Your task to perform on an android device: check storage Image 0: 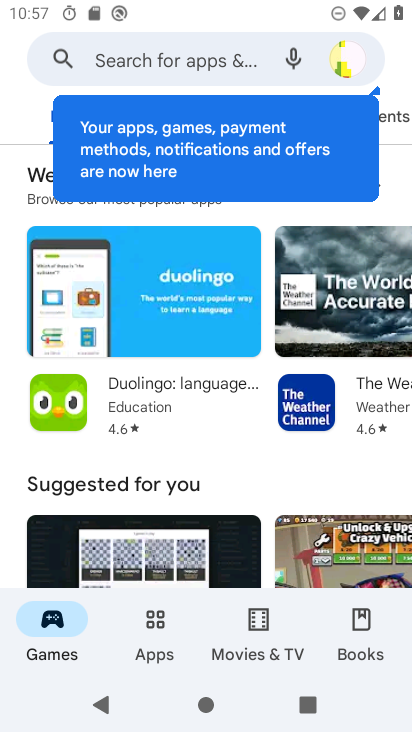
Step 0: press home button
Your task to perform on an android device: check storage Image 1: 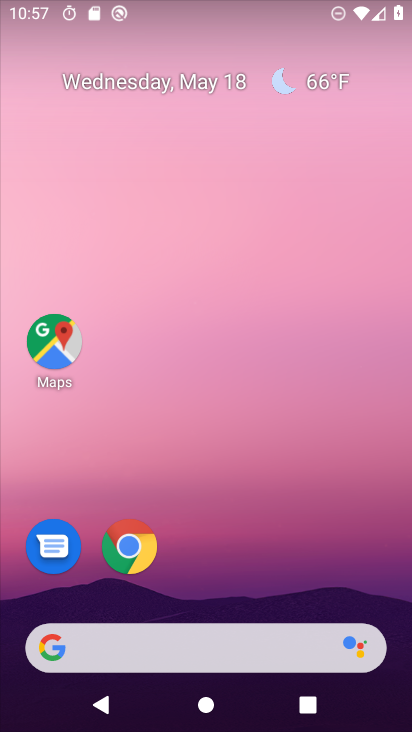
Step 1: drag from (258, 611) to (218, 9)
Your task to perform on an android device: check storage Image 2: 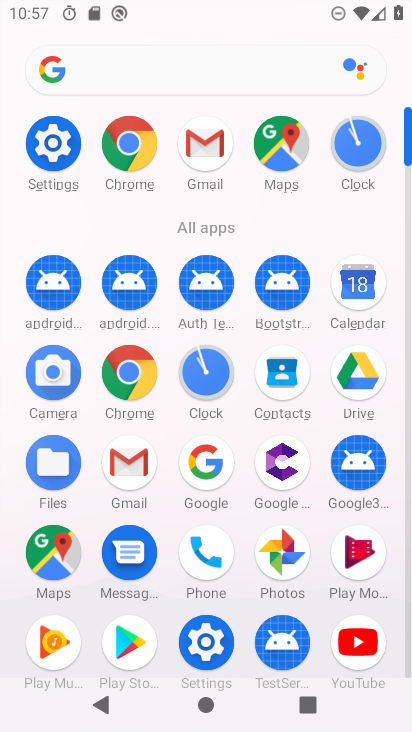
Step 2: click (46, 152)
Your task to perform on an android device: check storage Image 3: 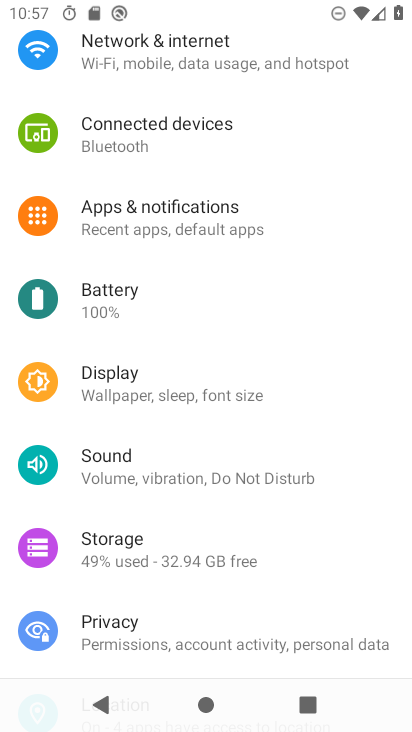
Step 3: click (132, 548)
Your task to perform on an android device: check storage Image 4: 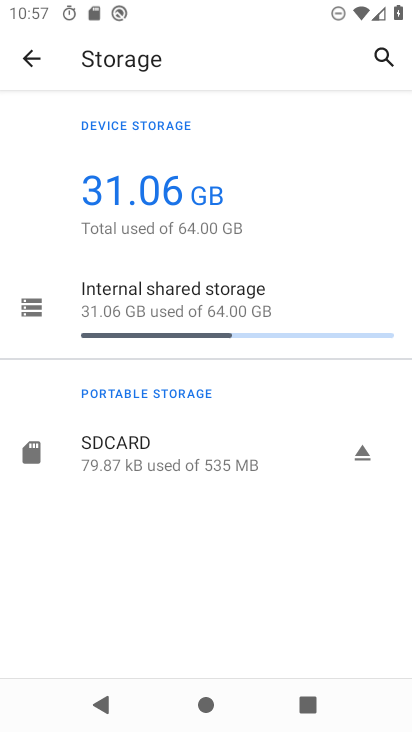
Step 4: task complete